Your task to perform on an android device: Open Google Chrome and open the bookmarks view Image 0: 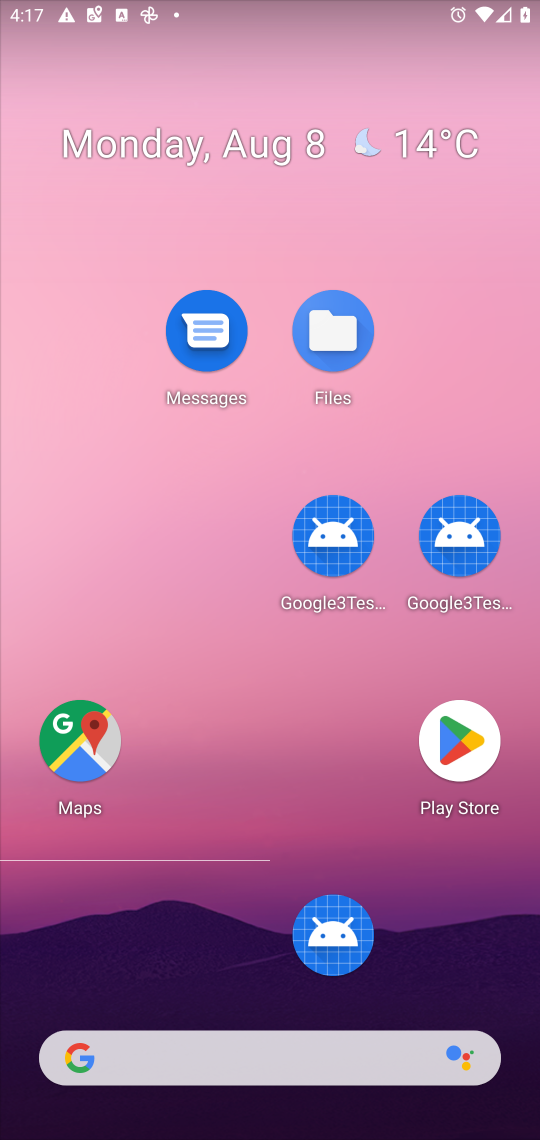
Step 0: drag from (338, 1050) to (352, 194)
Your task to perform on an android device: Open Google Chrome and open the bookmarks view Image 1: 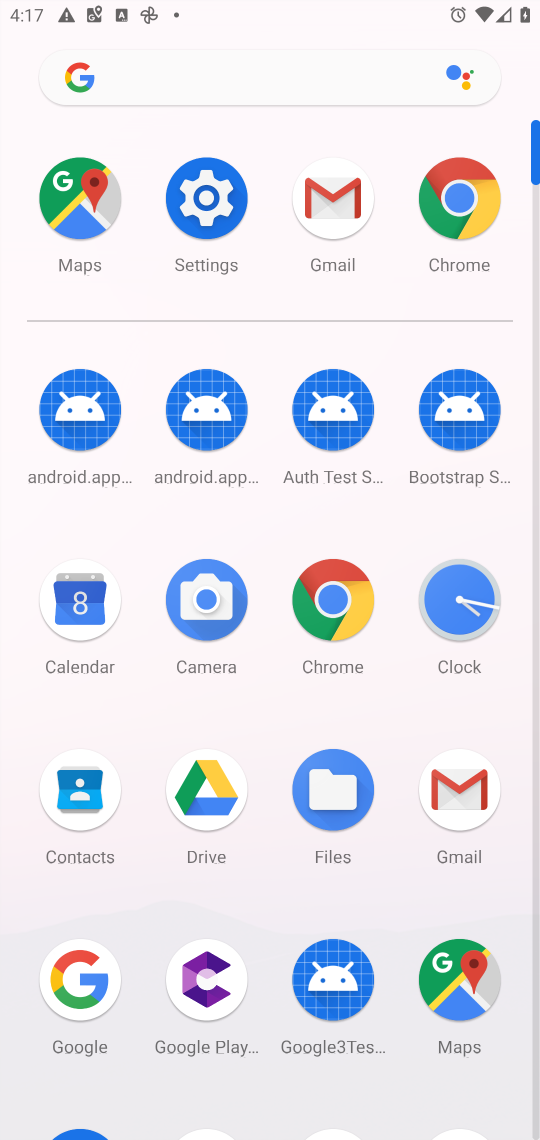
Step 1: click (322, 594)
Your task to perform on an android device: Open Google Chrome and open the bookmarks view Image 2: 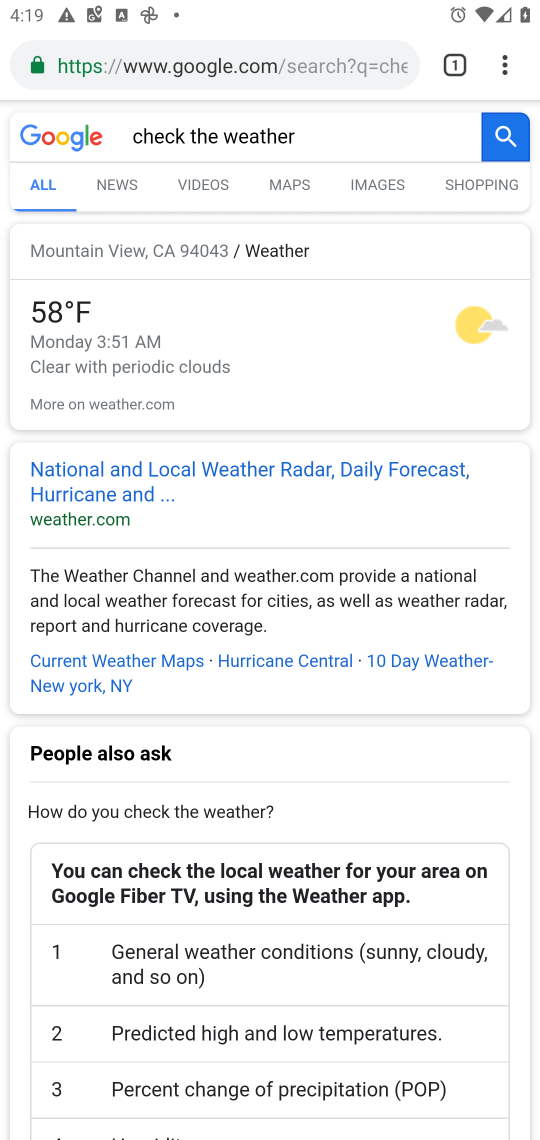
Step 2: click (496, 49)
Your task to perform on an android device: Open Google Chrome and open the bookmarks view Image 3: 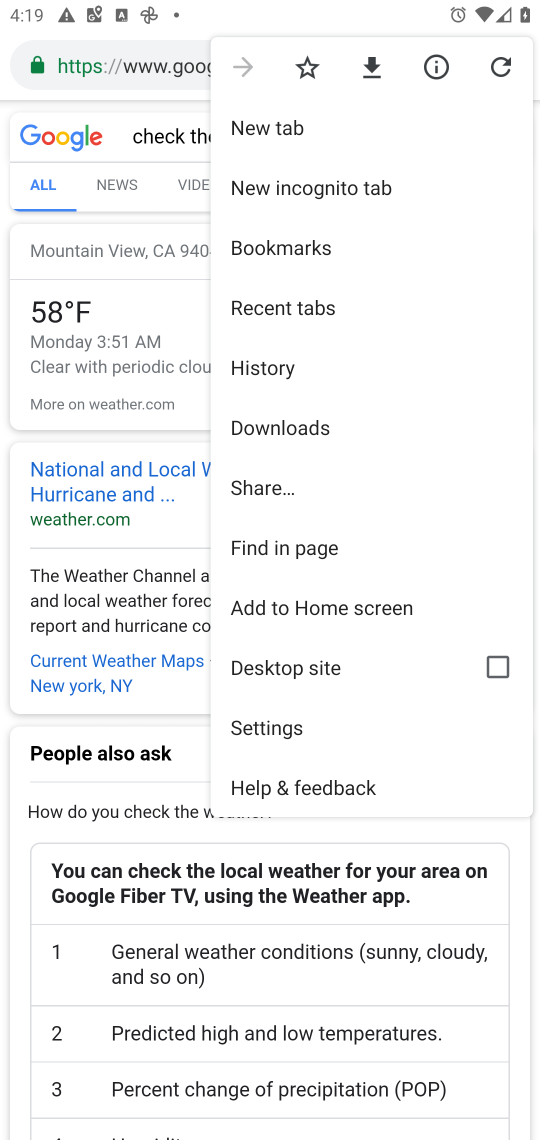
Step 3: click (306, 233)
Your task to perform on an android device: Open Google Chrome and open the bookmarks view Image 4: 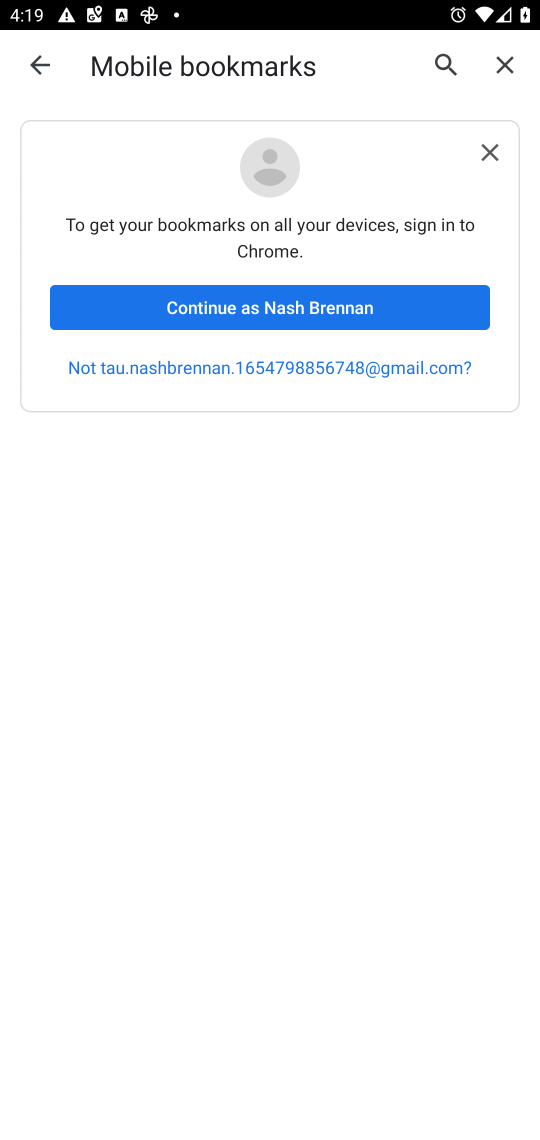
Step 4: task complete